Your task to perform on an android device: move a message to another label in the gmail app Image 0: 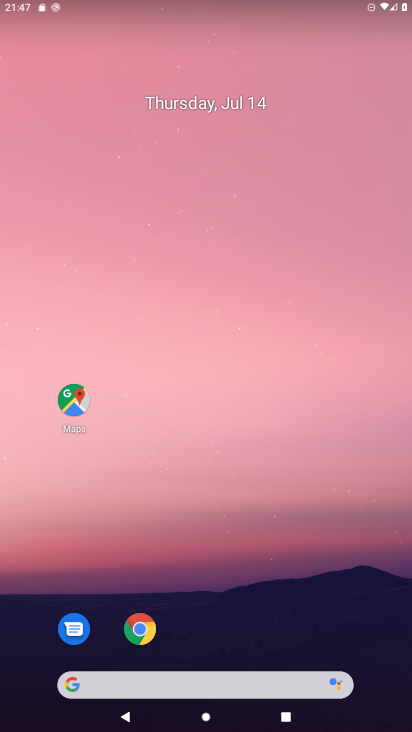
Step 0: drag from (182, 639) to (225, 219)
Your task to perform on an android device: move a message to another label in the gmail app Image 1: 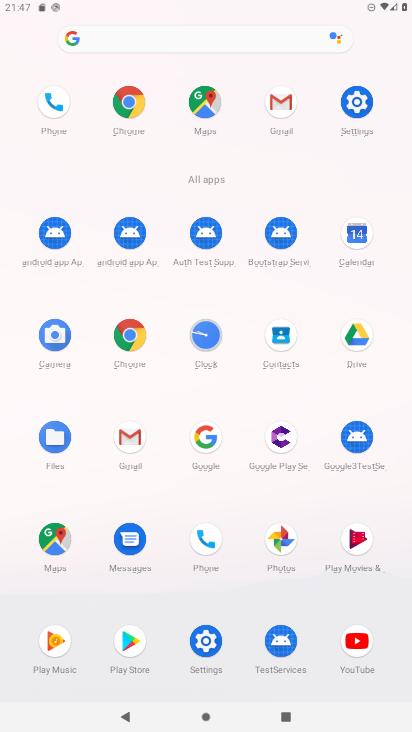
Step 1: click (268, 101)
Your task to perform on an android device: move a message to another label in the gmail app Image 2: 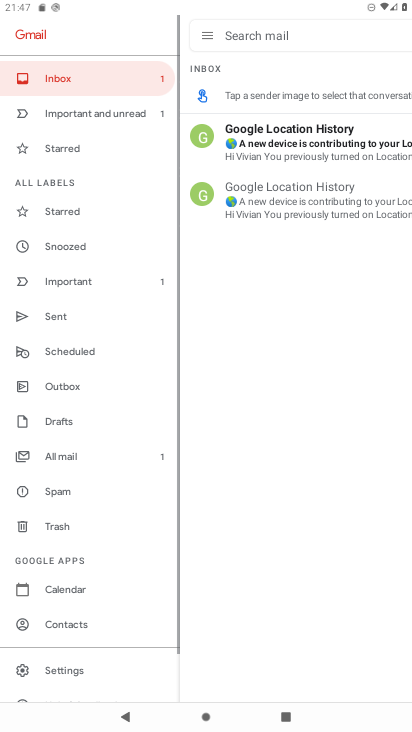
Step 2: click (276, 146)
Your task to perform on an android device: move a message to another label in the gmail app Image 3: 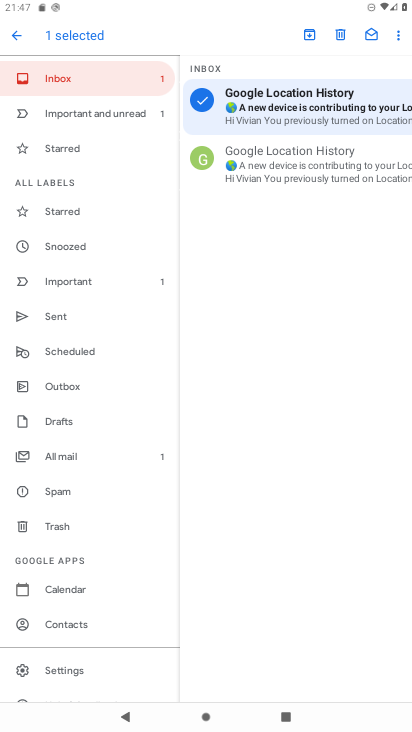
Step 3: click (396, 25)
Your task to perform on an android device: move a message to another label in the gmail app Image 4: 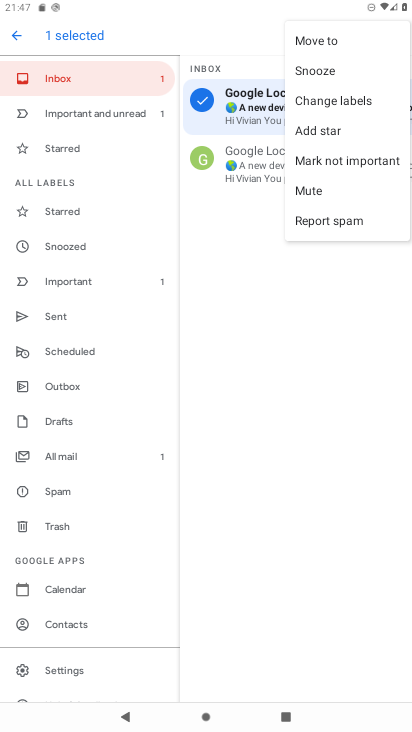
Step 4: click (320, 37)
Your task to perform on an android device: move a message to another label in the gmail app Image 5: 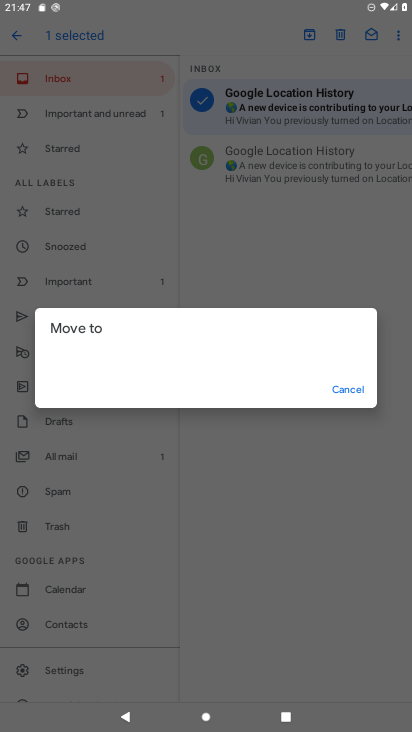
Step 5: click (368, 381)
Your task to perform on an android device: move a message to another label in the gmail app Image 6: 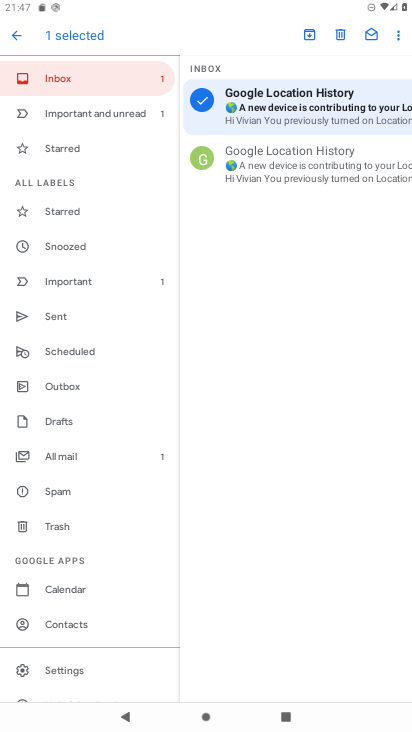
Step 6: task complete